Your task to perform on an android device: turn off improve location accuracy Image 0: 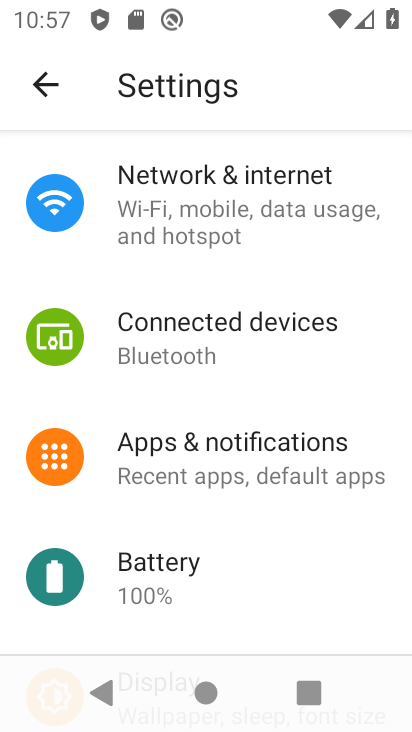
Step 0: drag from (245, 616) to (164, 41)
Your task to perform on an android device: turn off improve location accuracy Image 1: 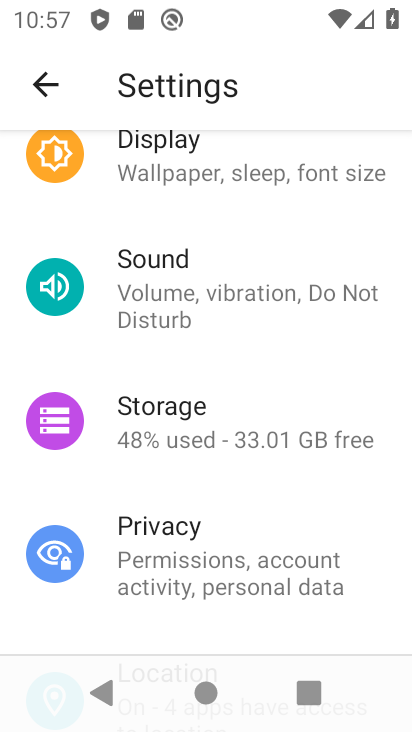
Step 1: drag from (184, 594) to (116, 163)
Your task to perform on an android device: turn off improve location accuracy Image 2: 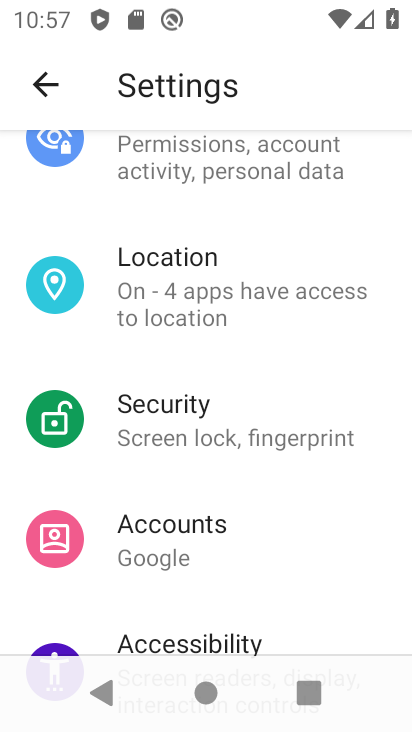
Step 2: click (141, 327)
Your task to perform on an android device: turn off improve location accuracy Image 3: 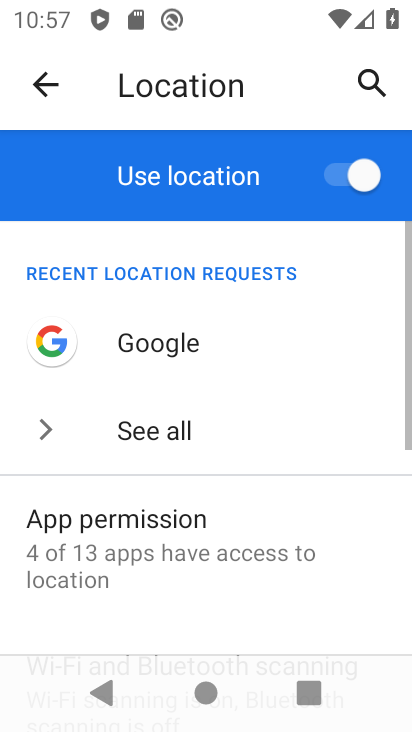
Step 3: drag from (231, 574) to (153, 220)
Your task to perform on an android device: turn off improve location accuracy Image 4: 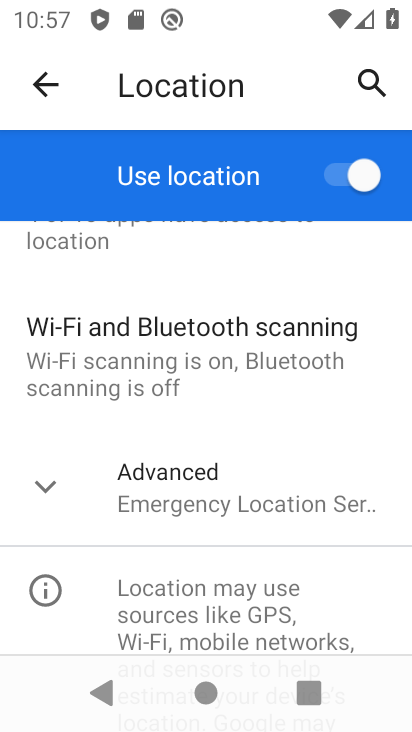
Step 4: click (149, 463)
Your task to perform on an android device: turn off improve location accuracy Image 5: 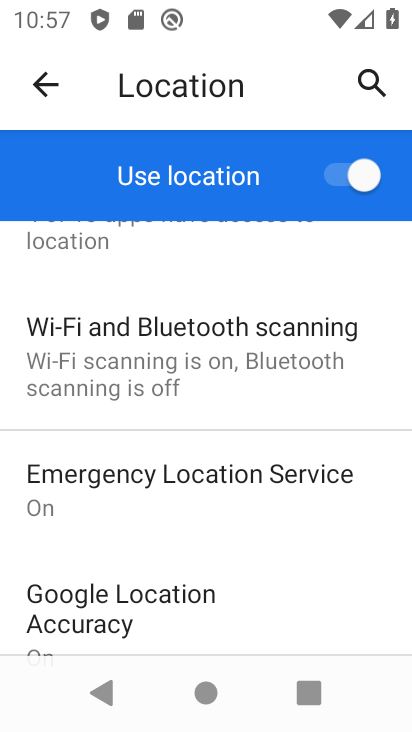
Step 5: click (195, 591)
Your task to perform on an android device: turn off improve location accuracy Image 6: 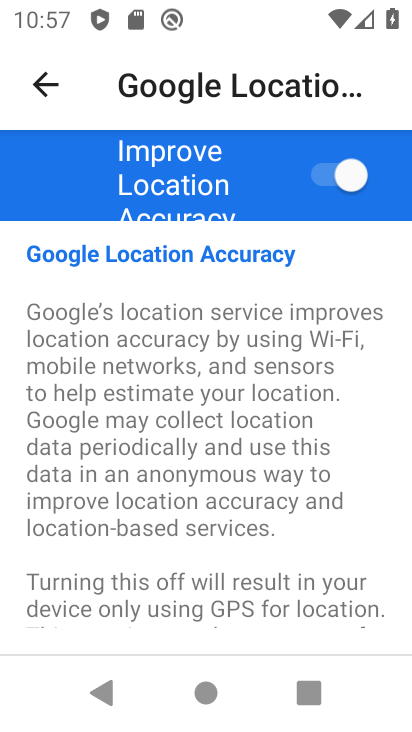
Step 6: click (337, 181)
Your task to perform on an android device: turn off improve location accuracy Image 7: 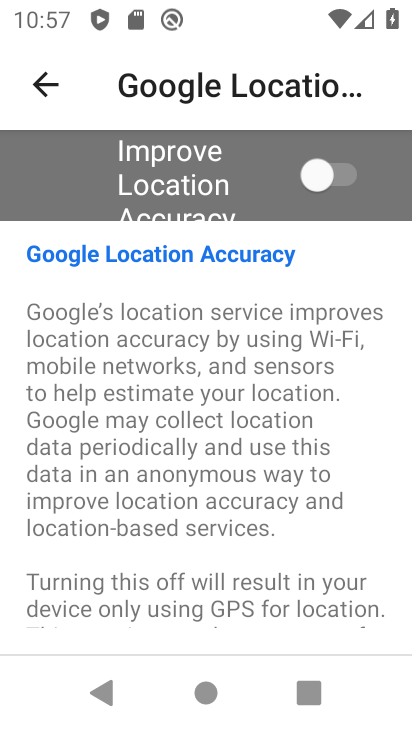
Step 7: task complete